Your task to perform on an android device: Open Google Chrome Image 0: 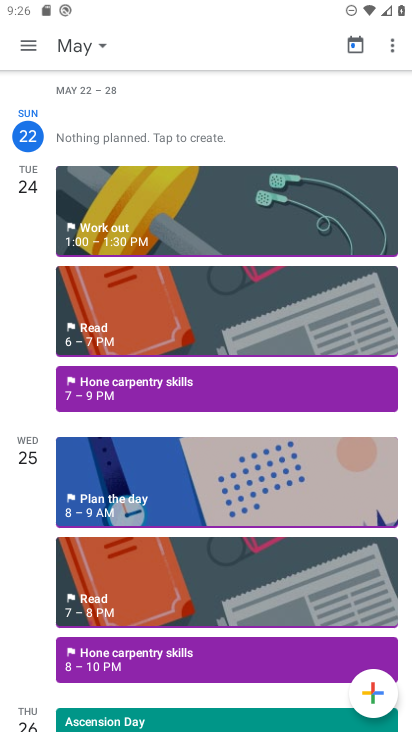
Step 0: press home button
Your task to perform on an android device: Open Google Chrome Image 1: 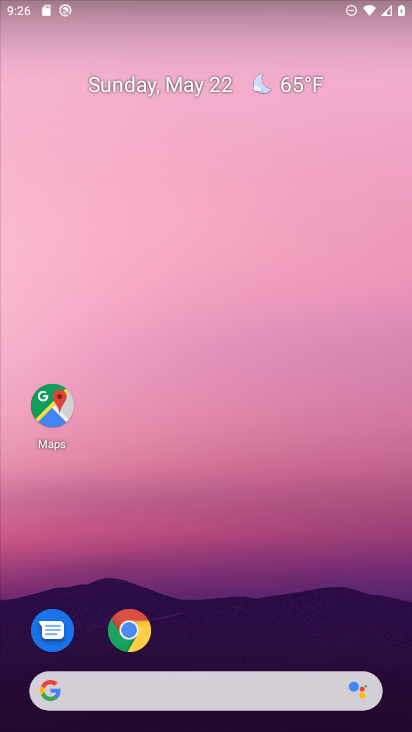
Step 1: click (119, 642)
Your task to perform on an android device: Open Google Chrome Image 2: 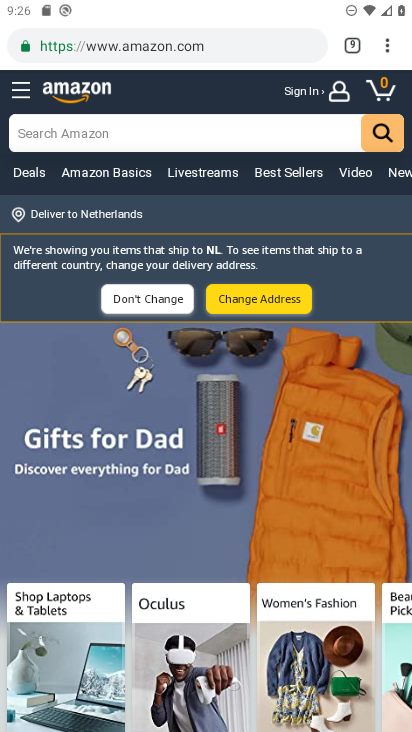
Step 2: task complete